Your task to perform on an android device: Open ESPN.com Image 0: 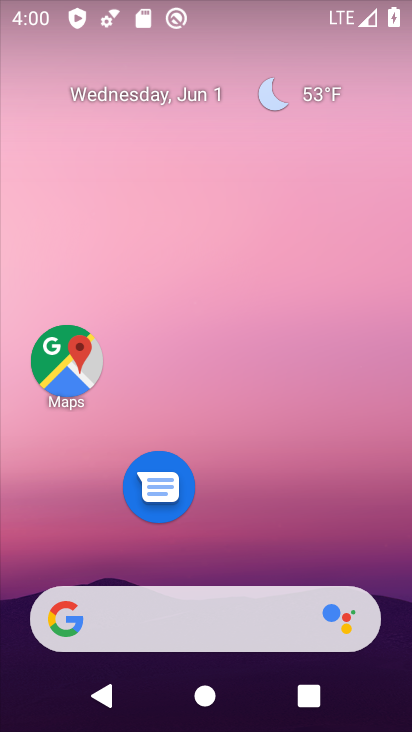
Step 0: click (402, 349)
Your task to perform on an android device: Open ESPN.com Image 1: 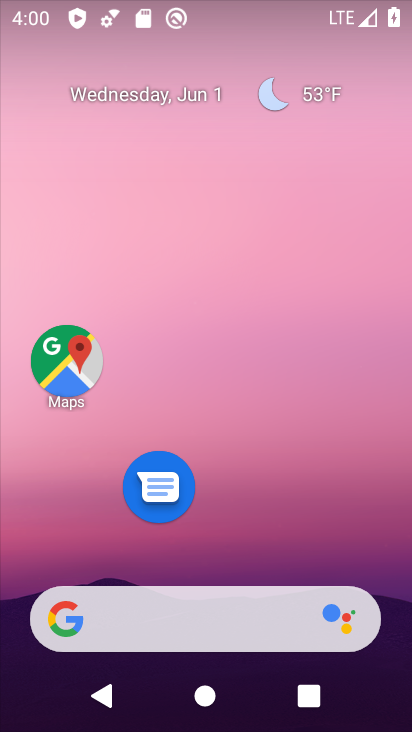
Step 1: drag from (257, 548) to (264, 264)
Your task to perform on an android device: Open ESPN.com Image 2: 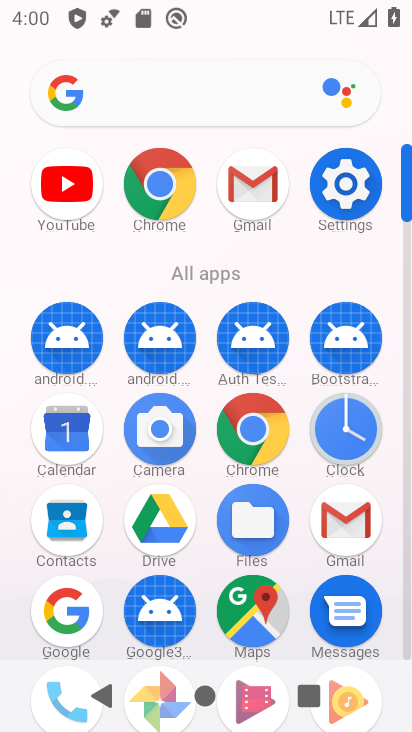
Step 2: click (255, 424)
Your task to perform on an android device: Open ESPN.com Image 3: 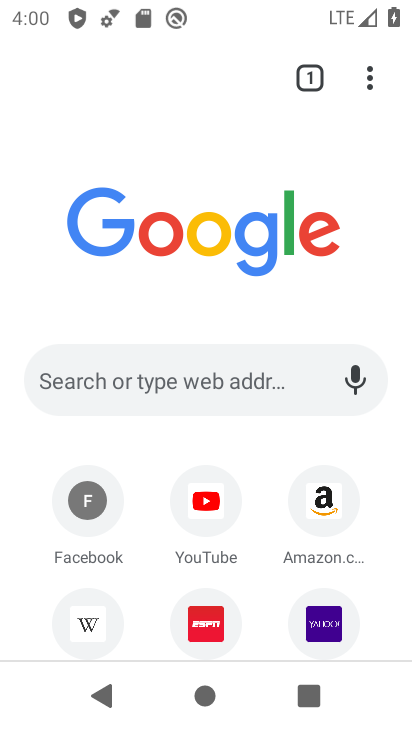
Step 3: click (211, 611)
Your task to perform on an android device: Open ESPN.com Image 4: 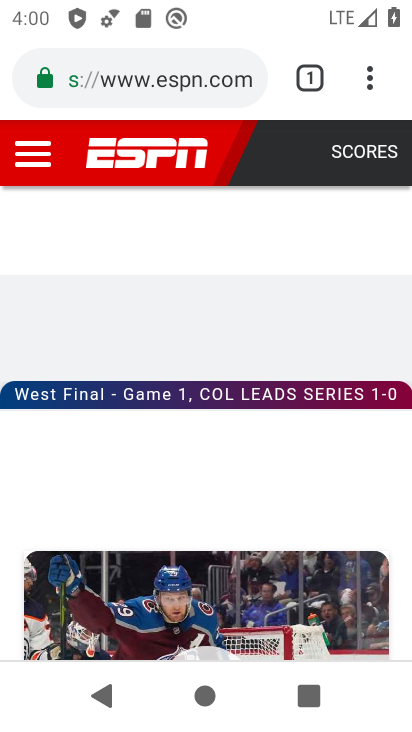
Step 4: task complete